Your task to perform on an android device: Search for pizza restaurants on Maps Image 0: 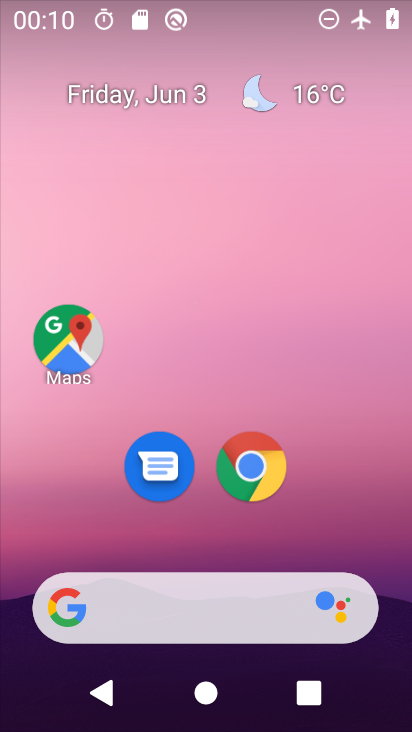
Step 0: click (79, 347)
Your task to perform on an android device: Search for pizza restaurants on Maps Image 1: 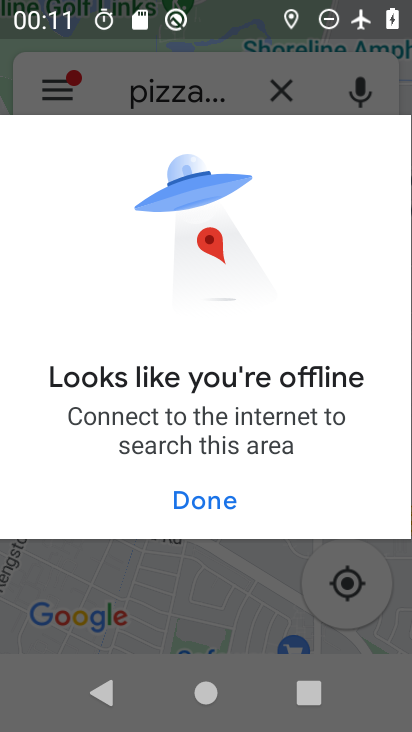
Step 1: task complete